Your task to perform on an android device: turn on showing notifications on the lock screen Image 0: 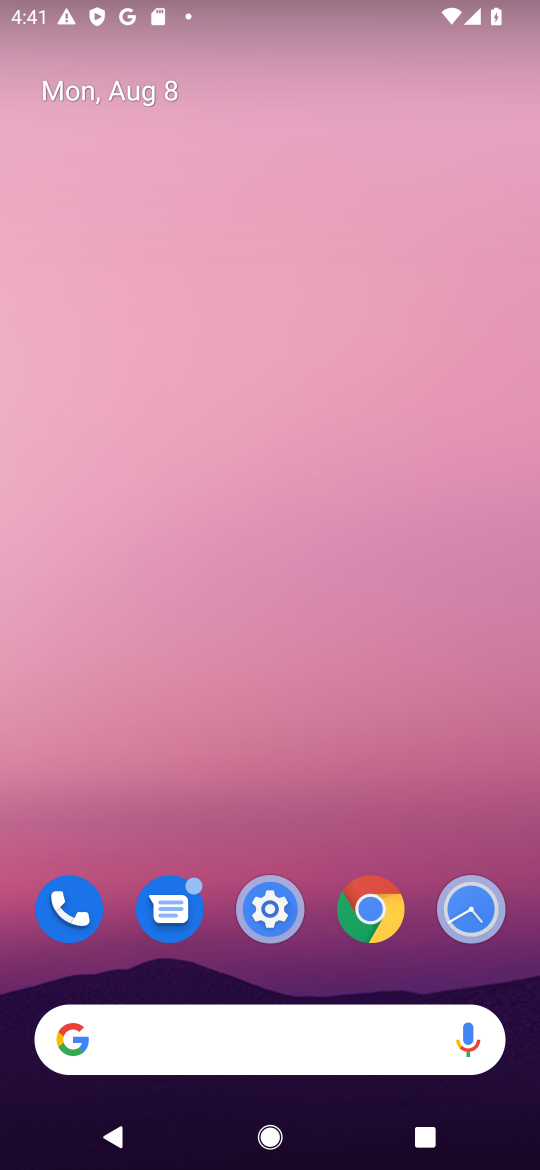
Step 0: click (265, 908)
Your task to perform on an android device: turn on showing notifications on the lock screen Image 1: 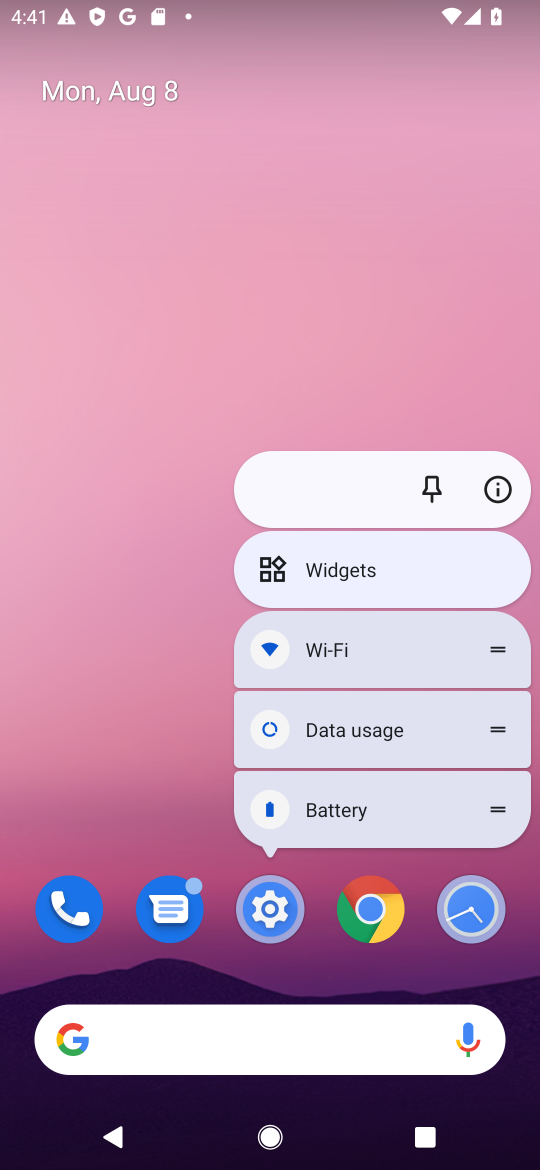
Step 1: click (265, 907)
Your task to perform on an android device: turn on showing notifications on the lock screen Image 2: 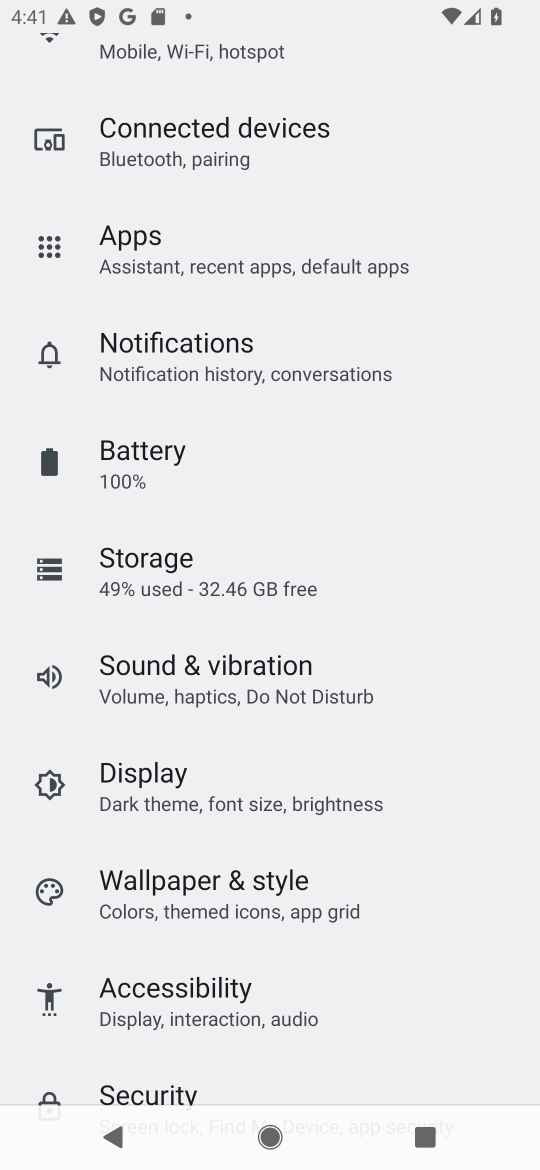
Step 2: click (235, 358)
Your task to perform on an android device: turn on showing notifications on the lock screen Image 3: 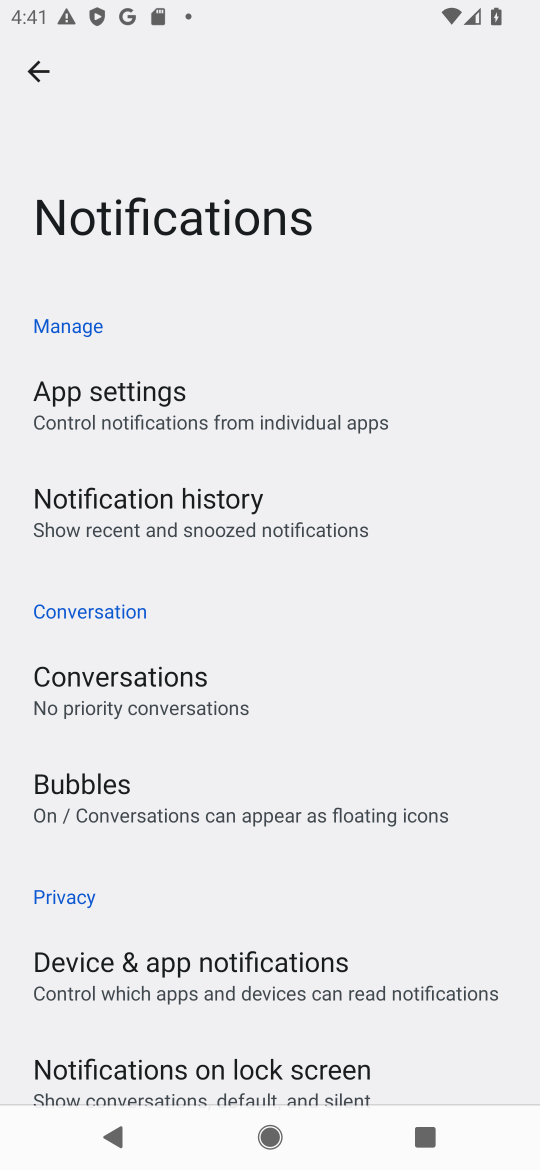
Step 3: drag from (313, 888) to (409, 452)
Your task to perform on an android device: turn on showing notifications on the lock screen Image 4: 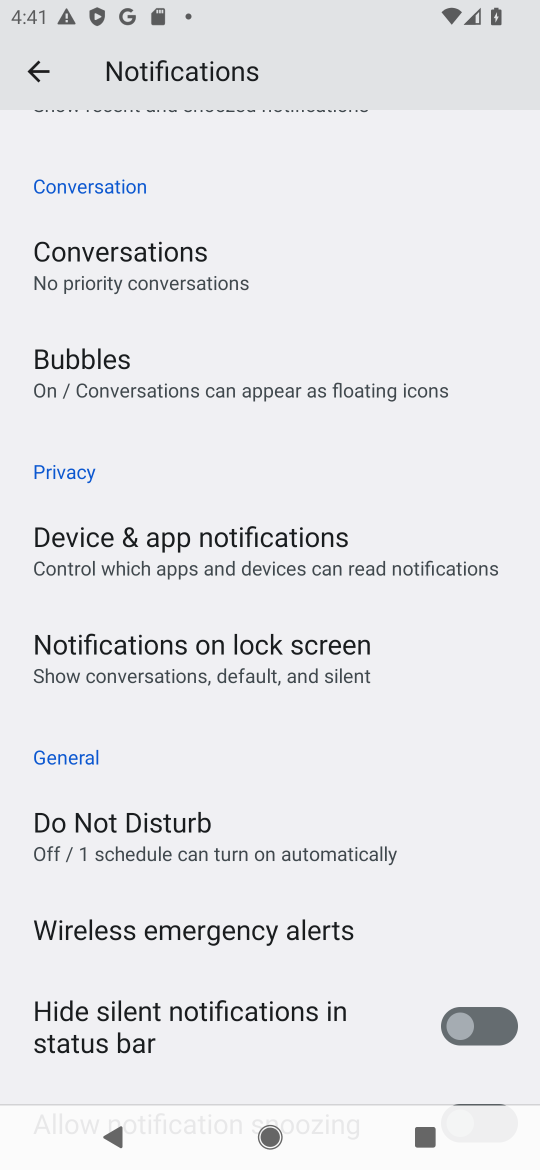
Step 4: click (296, 652)
Your task to perform on an android device: turn on showing notifications on the lock screen Image 5: 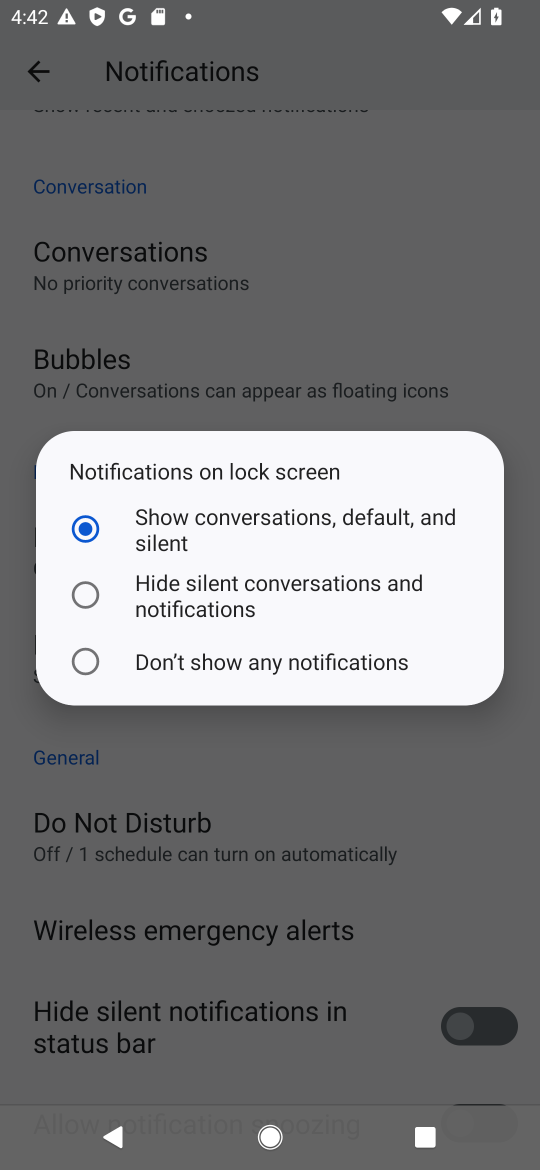
Step 5: task complete